Your task to perform on an android device: Open sound settings Image 0: 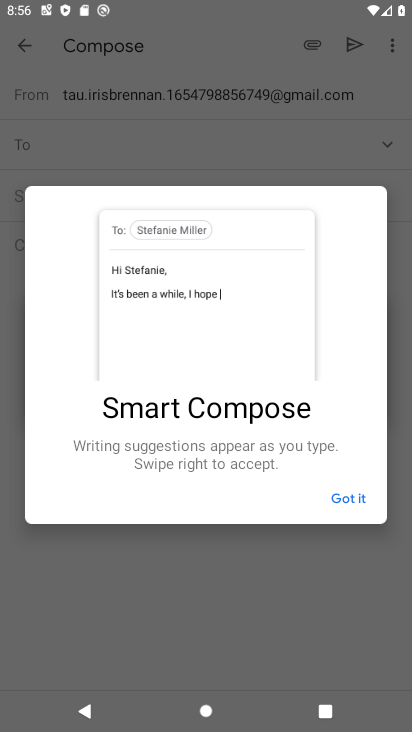
Step 0: press home button
Your task to perform on an android device: Open sound settings Image 1: 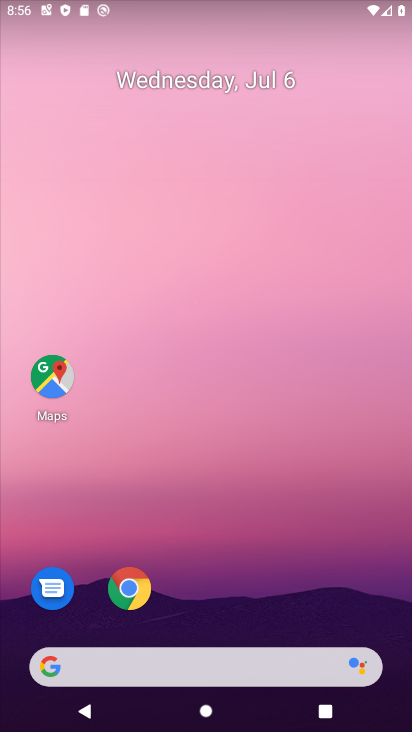
Step 1: drag from (203, 667) to (289, 140)
Your task to perform on an android device: Open sound settings Image 2: 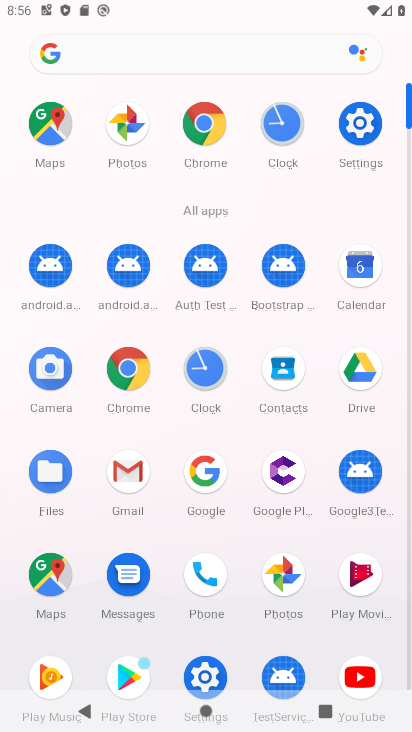
Step 2: click (352, 119)
Your task to perform on an android device: Open sound settings Image 3: 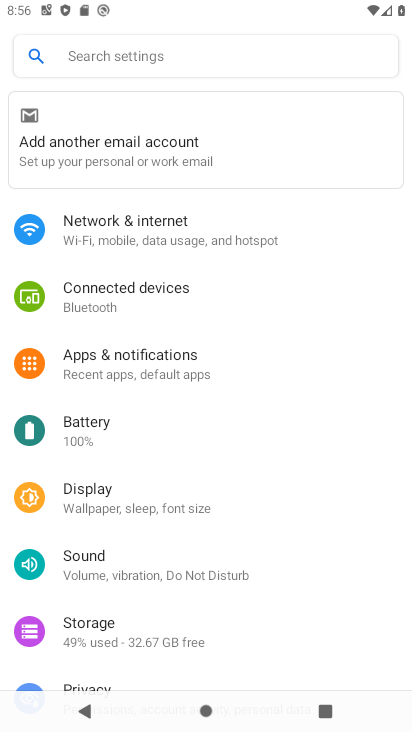
Step 3: click (131, 567)
Your task to perform on an android device: Open sound settings Image 4: 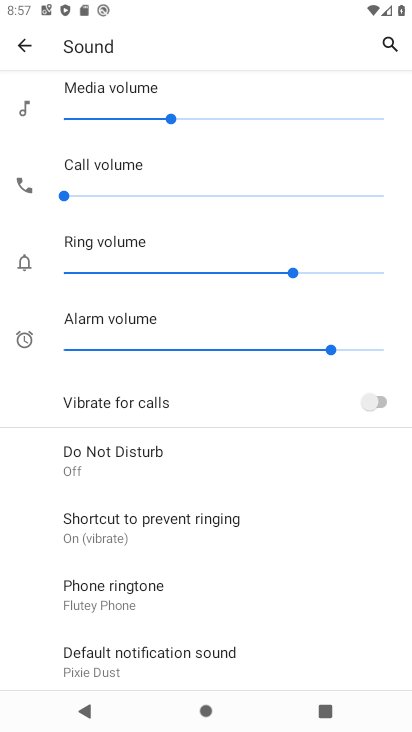
Step 4: task complete